Your task to perform on an android device: turn on showing notifications on the lock screen Image 0: 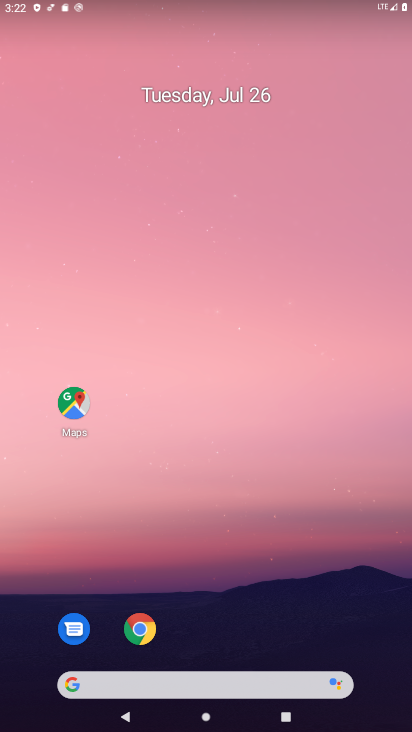
Step 0: drag from (227, 687) to (224, 126)
Your task to perform on an android device: turn on showing notifications on the lock screen Image 1: 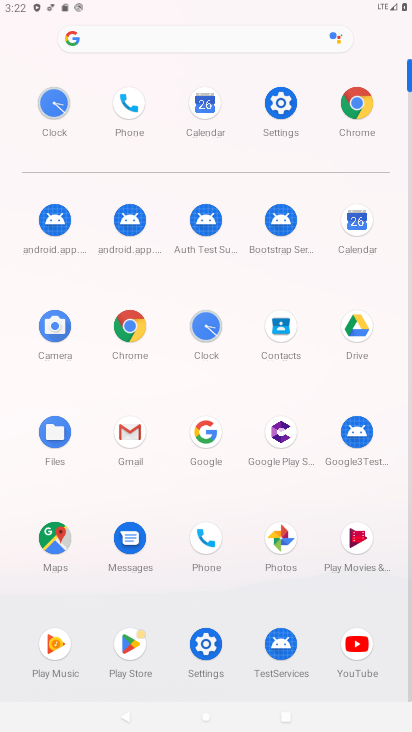
Step 1: click (283, 102)
Your task to perform on an android device: turn on showing notifications on the lock screen Image 2: 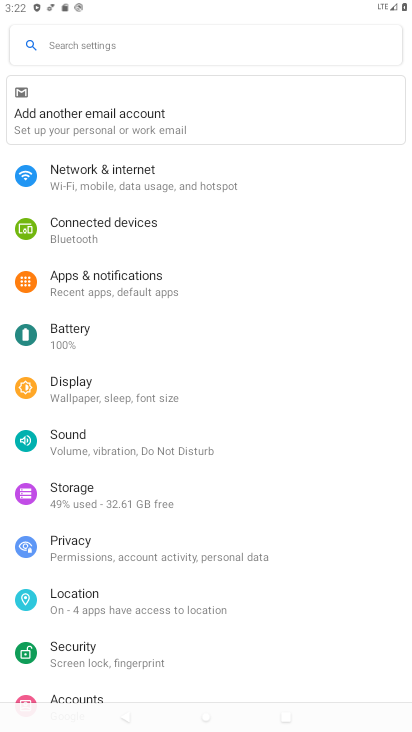
Step 2: click (107, 282)
Your task to perform on an android device: turn on showing notifications on the lock screen Image 3: 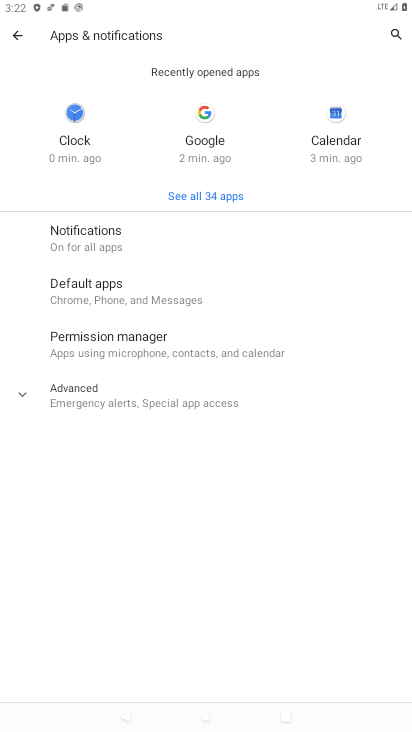
Step 3: click (77, 230)
Your task to perform on an android device: turn on showing notifications on the lock screen Image 4: 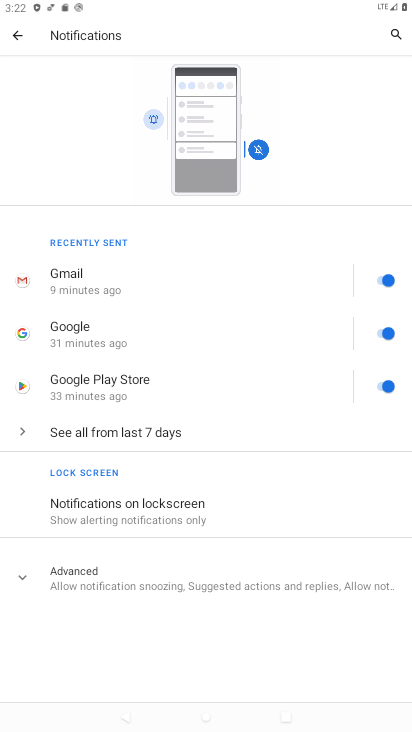
Step 4: click (135, 512)
Your task to perform on an android device: turn on showing notifications on the lock screen Image 5: 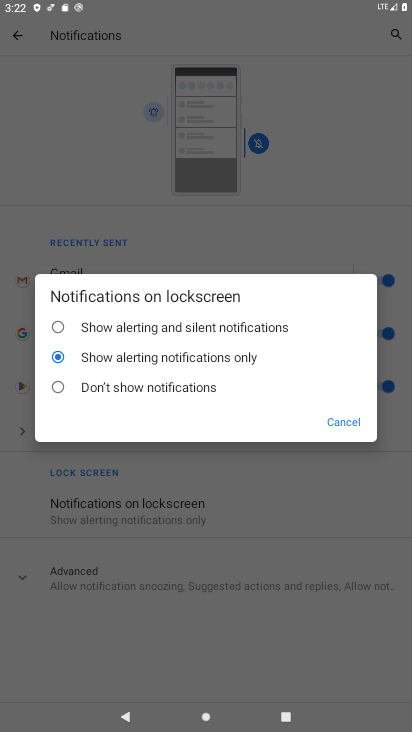
Step 5: click (57, 322)
Your task to perform on an android device: turn on showing notifications on the lock screen Image 6: 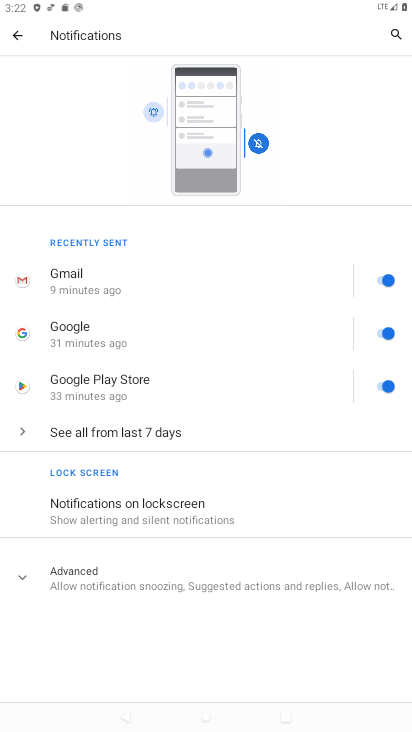
Step 6: task complete